Your task to perform on an android device: change notifications settings Image 0: 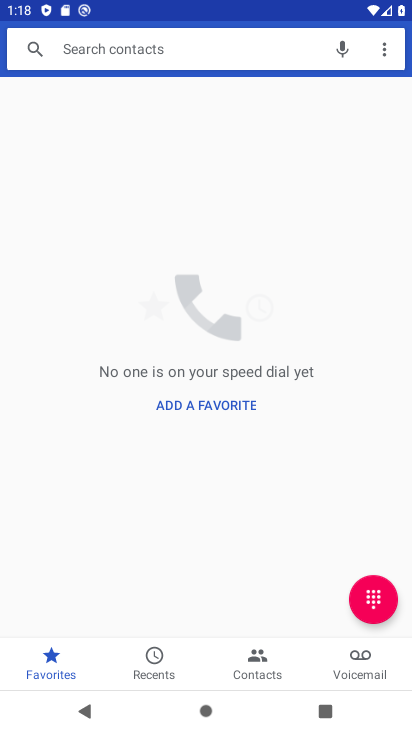
Step 0: press home button
Your task to perform on an android device: change notifications settings Image 1: 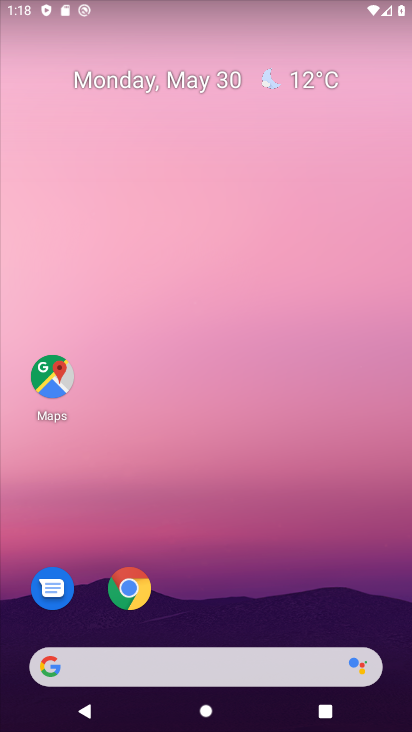
Step 1: drag from (292, 588) to (266, 204)
Your task to perform on an android device: change notifications settings Image 2: 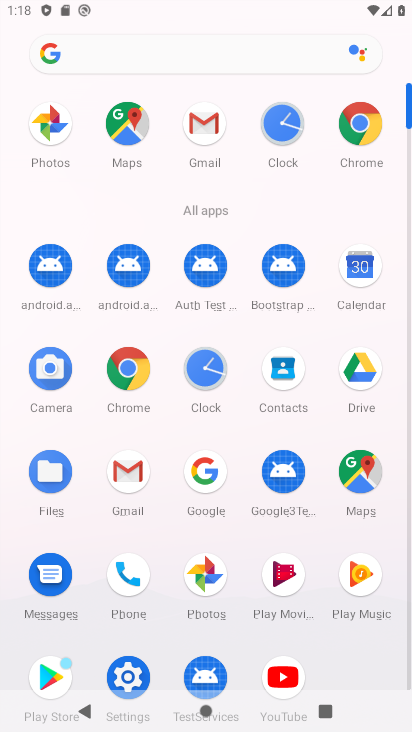
Step 2: click (129, 666)
Your task to perform on an android device: change notifications settings Image 3: 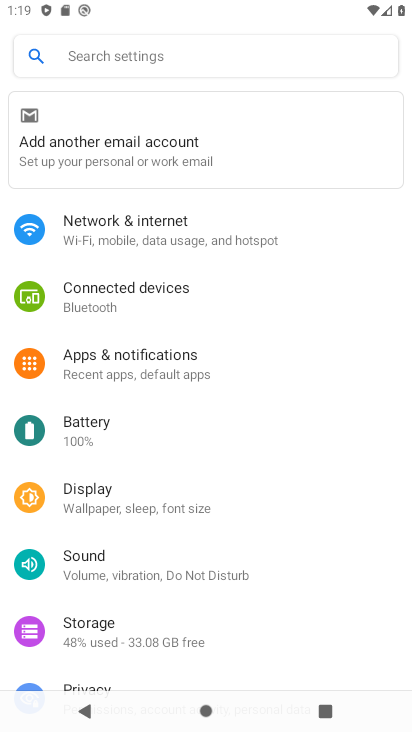
Step 3: click (215, 365)
Your task to perform on an android device: change notifications settings Image 4: 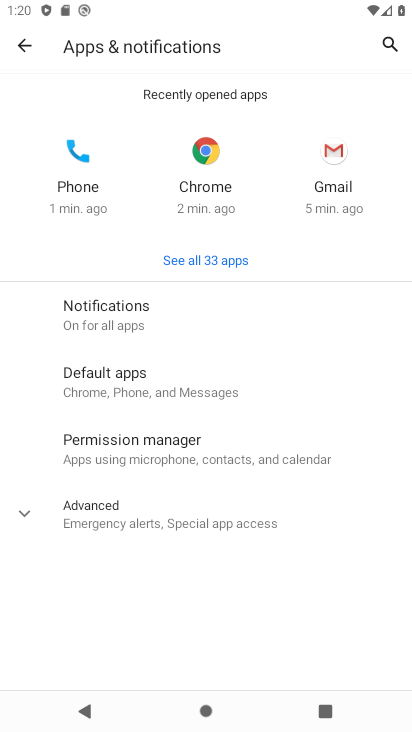
Step 4: click (89, 319)
Your task to perform on an android device: change notifications settings Image 5: 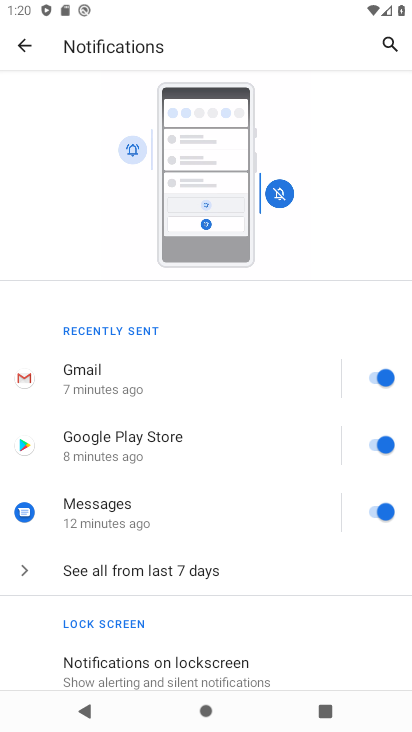
Step 5: drag from (208, 613) to (251, 340)
Your task to perform on an android device: change notifications settings Image 6: 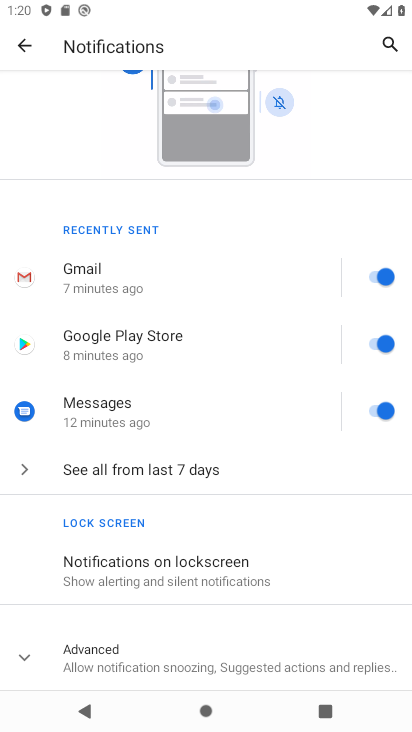
Step 6: click (373, 353)
Your task to perform on an android device: change notifications settings Image 7: 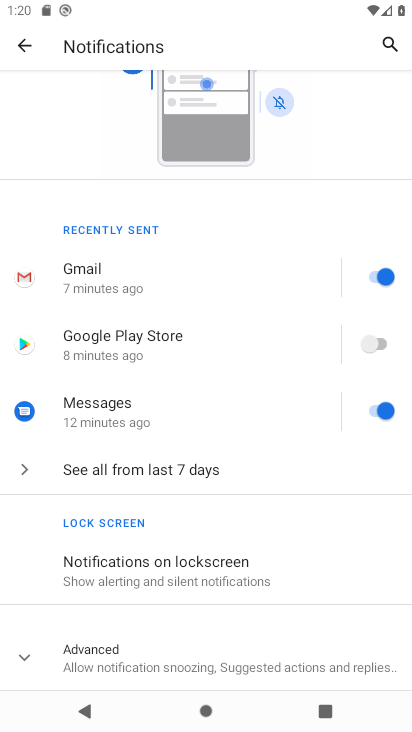
Step 7: task complete